Your task to perform on an android device: Open the phone app and click the voicemail tab. Image 0: 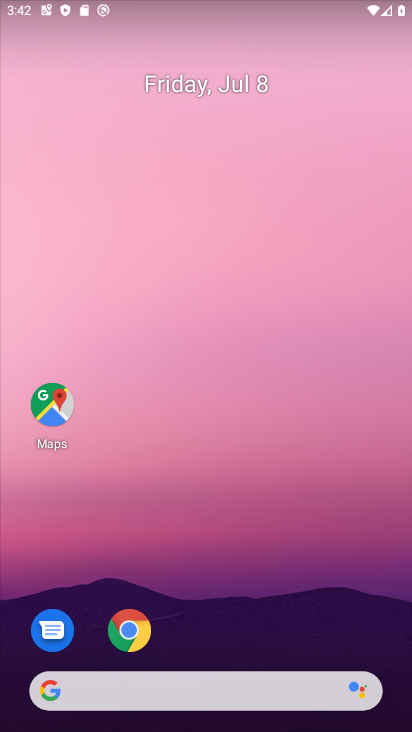
Step 0: drag from (262, 607) to (262, 151)
Your task to perform on an android device: Open the phone app and click the voicemail tab. Image 1: 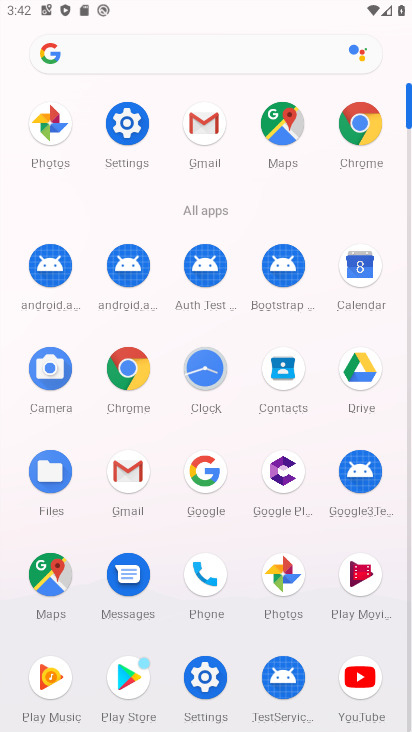
Step 1: click (213, 570)
Your task to perform on an android device: Open the phone app and click the voicemail tab. Image 2: 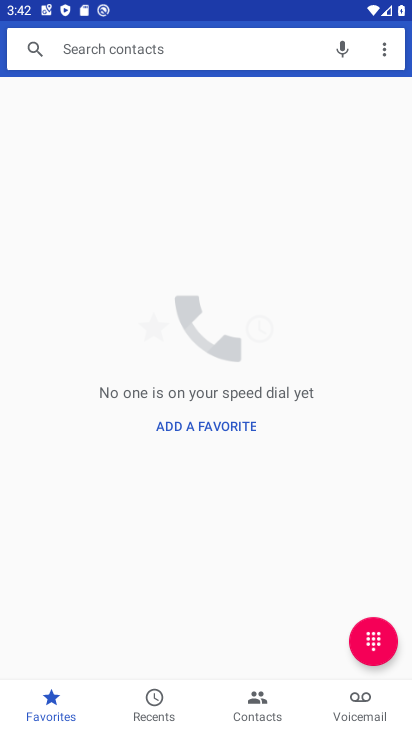
Step 2: click (362, 704)
Your task to perform on an android device: Open the phone app and click the voicemail tab. Image 3: 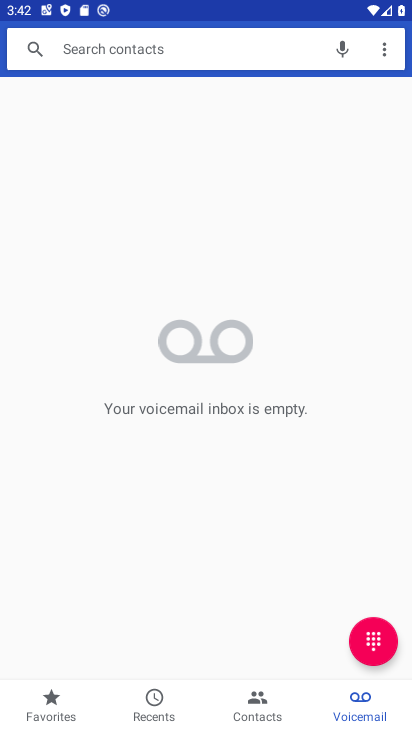
Step 3: task complete